Your task to perform on an android device: What is the speed of a rocket? Image 0: 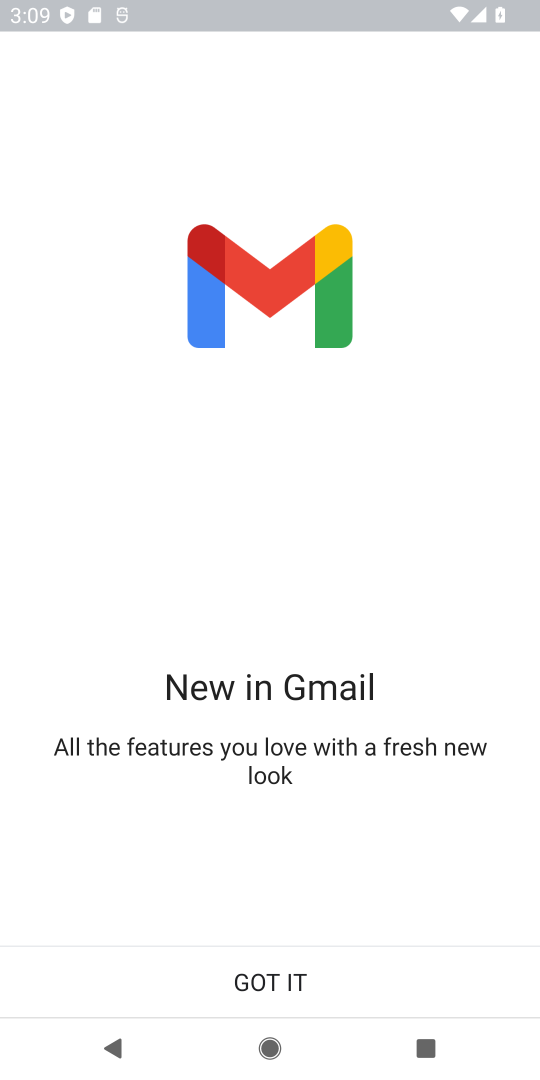
Step 0: press home button
Your task to perform on an android device: What is the speed of a rocket? Image 1: 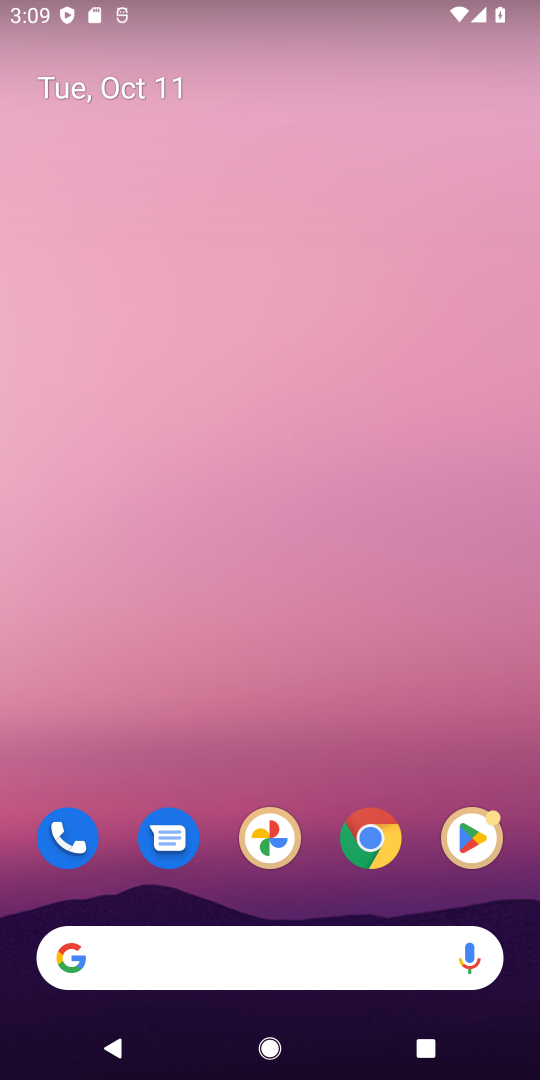
Step 1: click (305, 951)
Your task to perform on an android device: What is the speed of a rocket? Image 2: 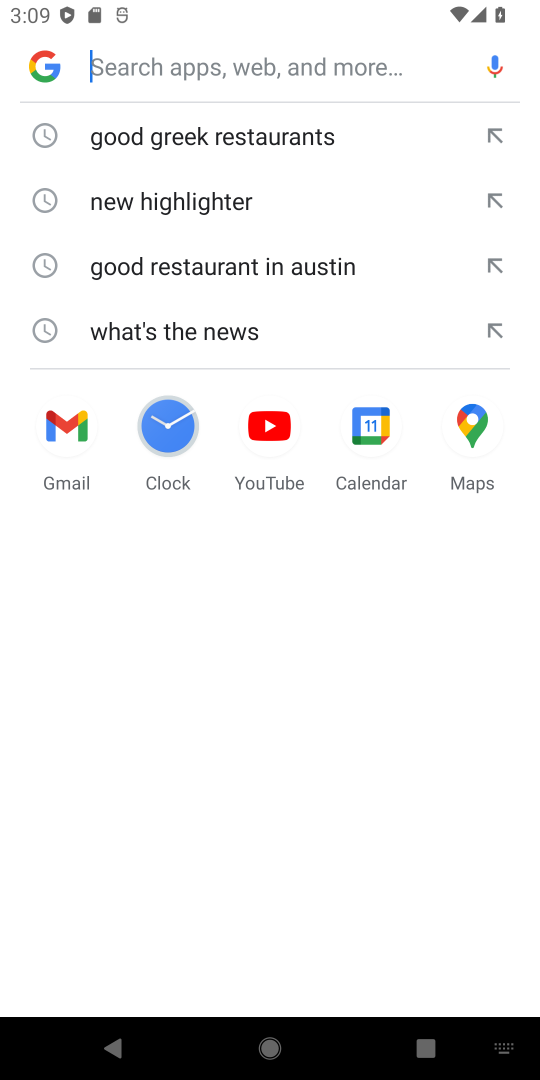
Step 2: type "What is the speed of a rocket?"
Your task to perform on an android device: What is the speed of a rocket? Image 3: 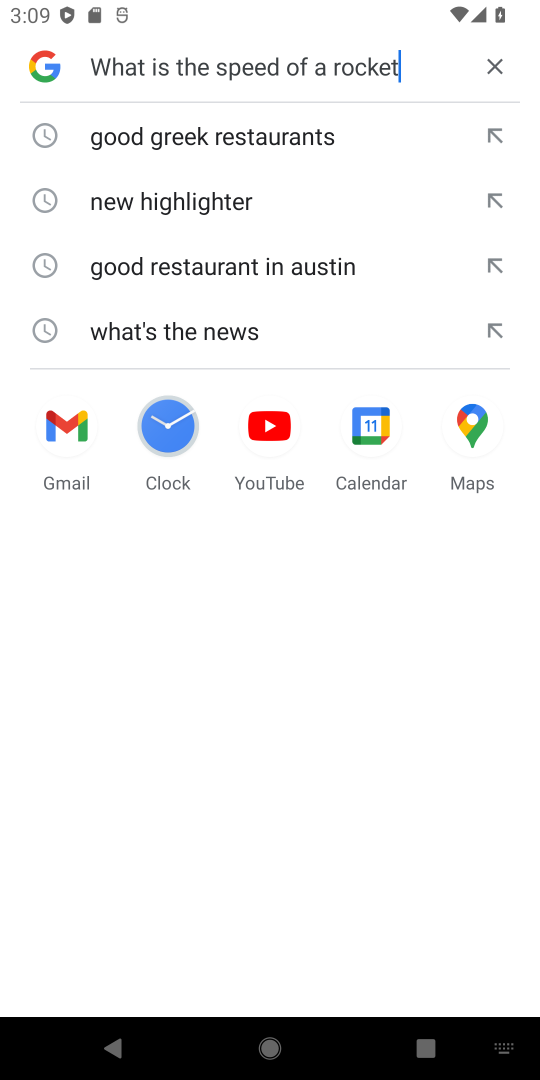
Step 3: type ""
Your task to perform on an android device: What is the speed of a rocket? Image 4: 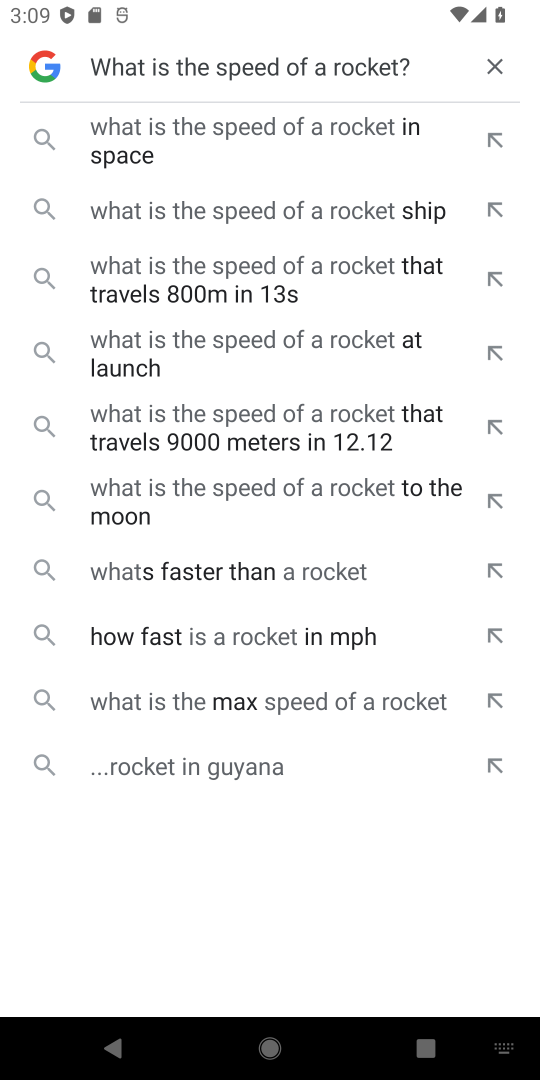
Step 4: click (304, 136)
Your task to perform on an android device: What is the speed of a rocket? Image 5: 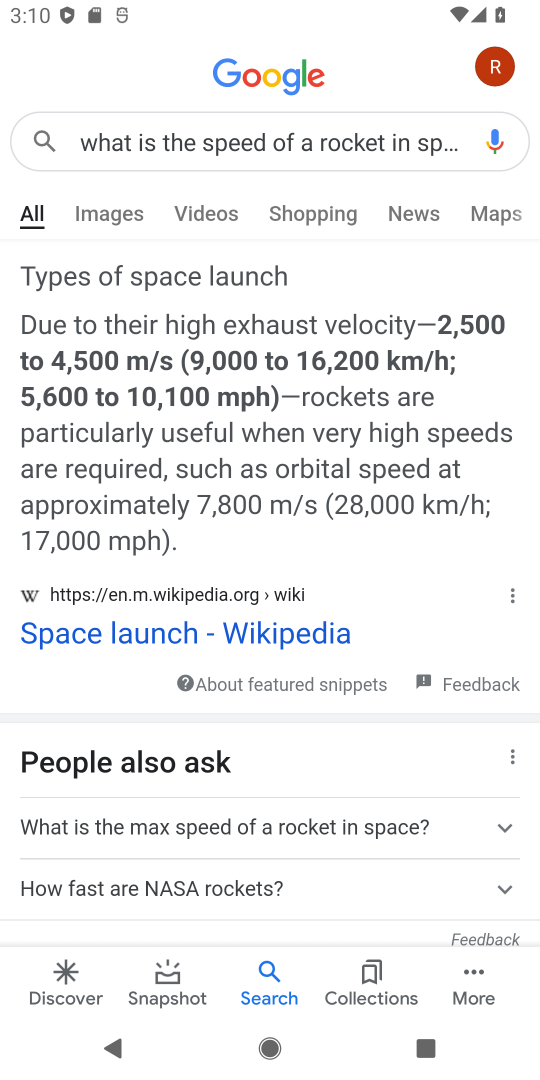
Step 5: task complete